Your task to perform on an android device: set the timer Image 0: 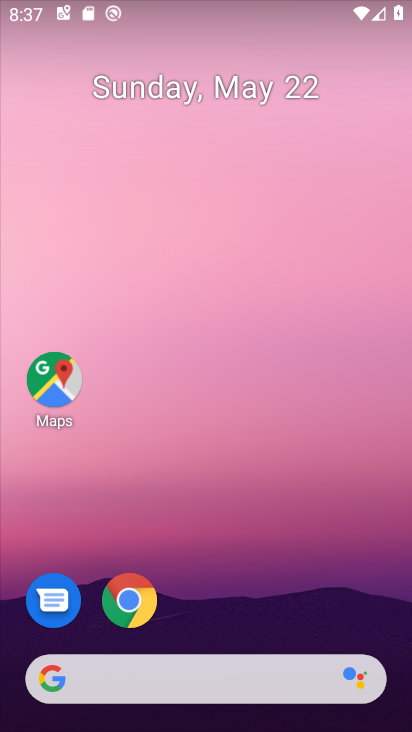
Step 0: drag from (224, 636) to (279, 294)
Your task to perform on an android device: set the timer Image 1: 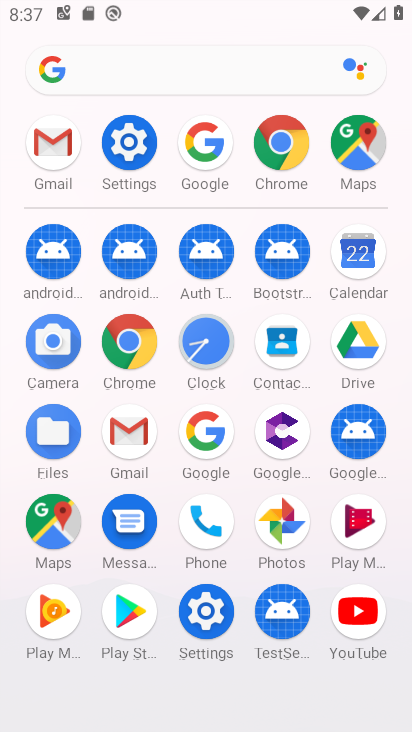
Step 1: click (221, 341)
Your task to perform on an android device: set the timer Image 2: 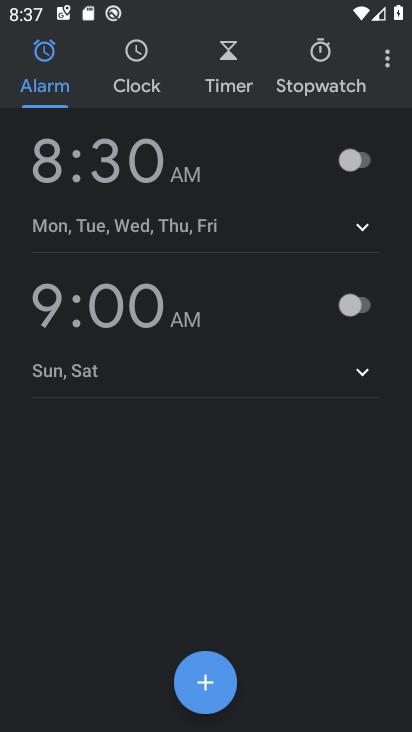
Step 2: click (226, 67)
Your task to perform on an android device: set the timer Image 3: 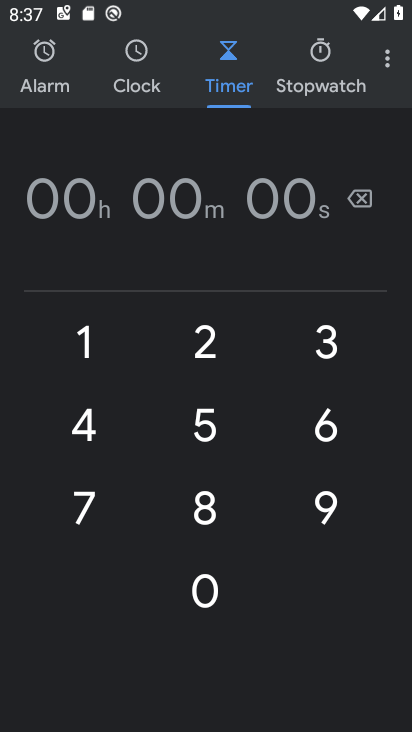
Step 3: click (207, 604)
Your task to perform on an android device: set the timer Image 4: 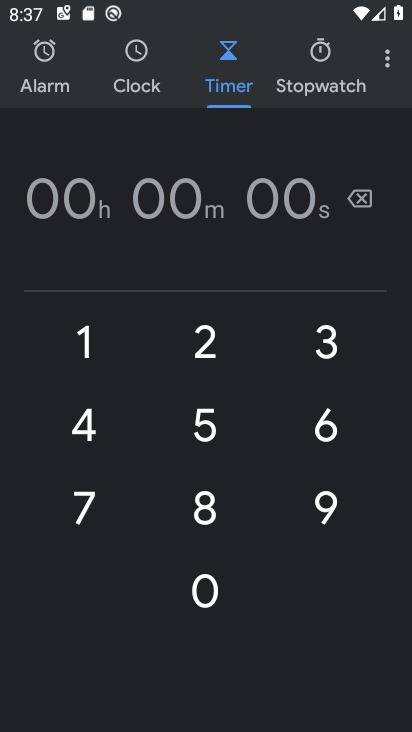
Step 4: click (217, 419)
Your task to perform on an android device: set the timer Image 5: 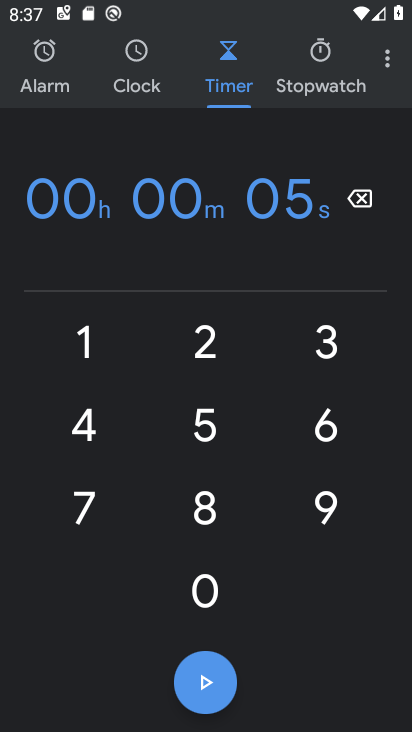
Step 5: click (209, 588)
Your task to perform on an android device: set the timer Image 6: 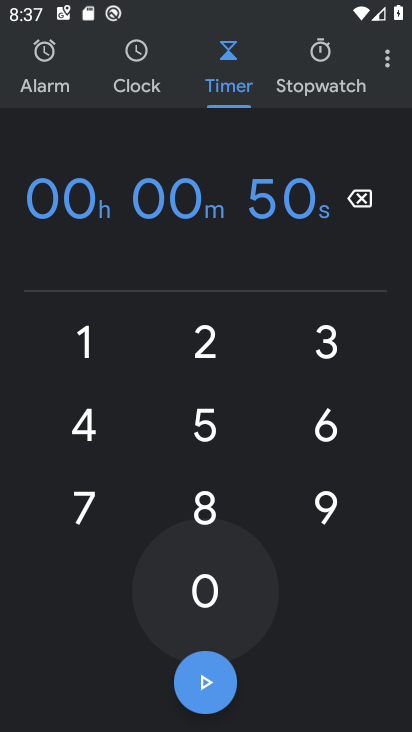
Step 6: click (207, 587)
Your task to perform on an android device: set the timer Image 7: 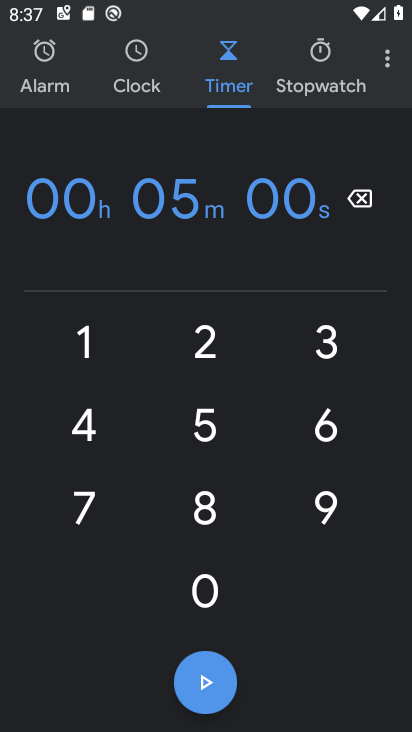
Step 7: click (208, 696)
Your task to perform on an android device: set the timer Image 8: 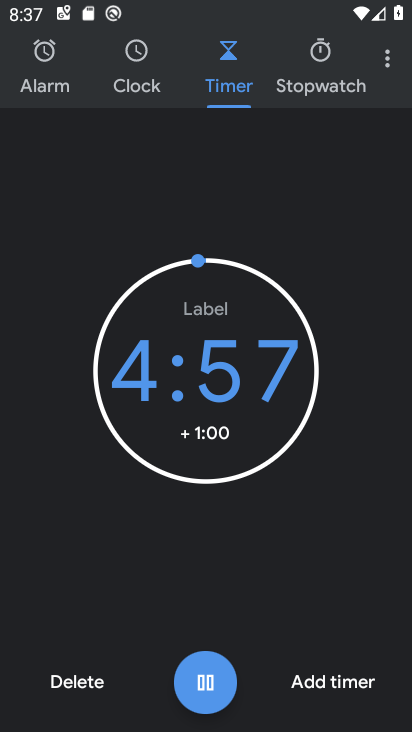
Step 8: task complete